Your task to perform on an android device: turn off picture-in-picture Image 0: 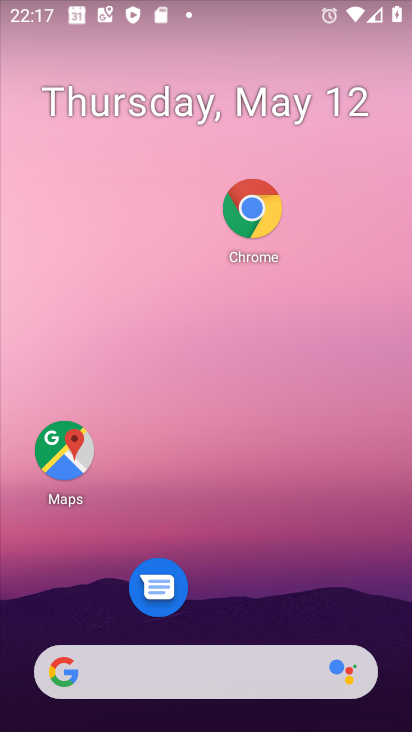
Step 0: drag from (281, 567) to (276, 261)
Your task to perform on an android device: turn off picture-in-picture Image 1: 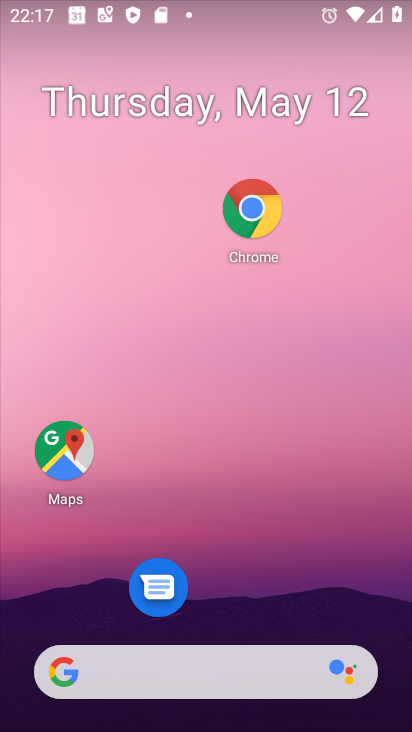
Step 1: drag from (240, 588) to (282, 239)
Your task to perform on an android device: turn off picture-in-picture Image 2: 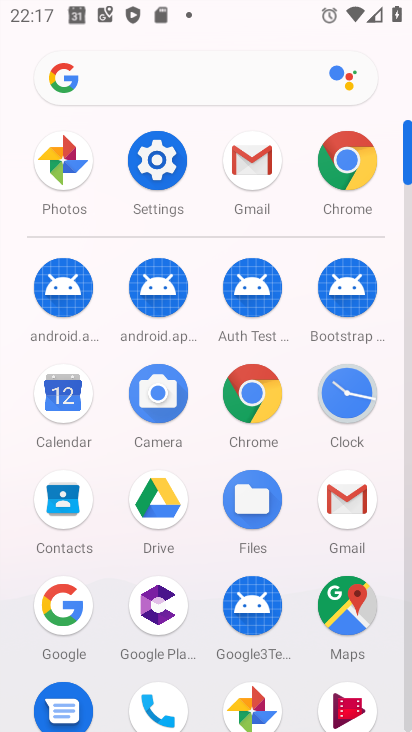
Step 2: click (350, 153)
Your task to perform on an android device: turn off picture-in-picture Image 3: 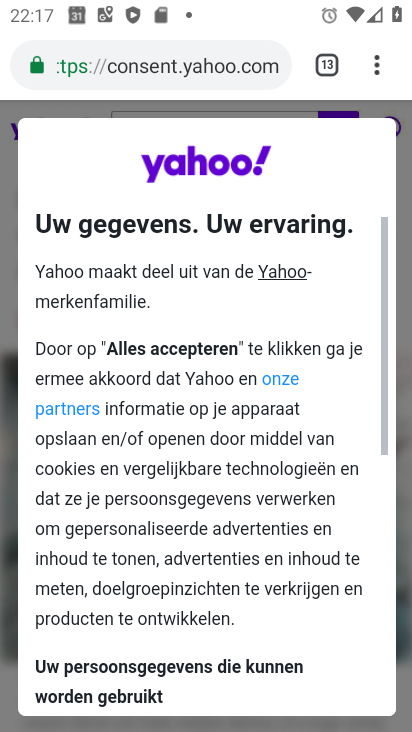
Step 3: press home button
Your task to perform on an android device: turn off picture-in-picture Image 4: 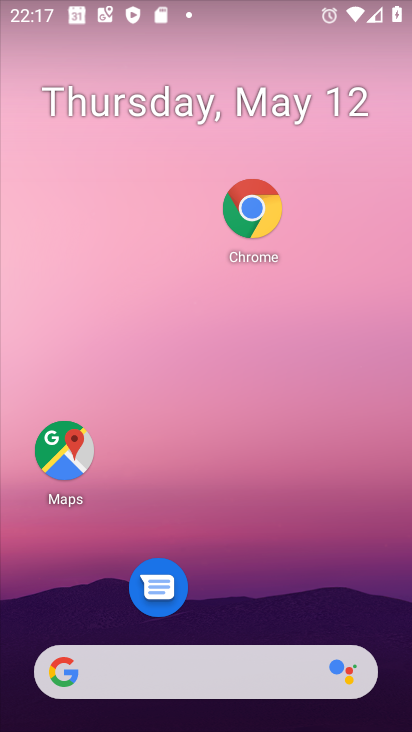
Step 4: drag from (281, 502) to (289, 234)
Your task to perform on an android device: turn off picture-in-picture Image 5: 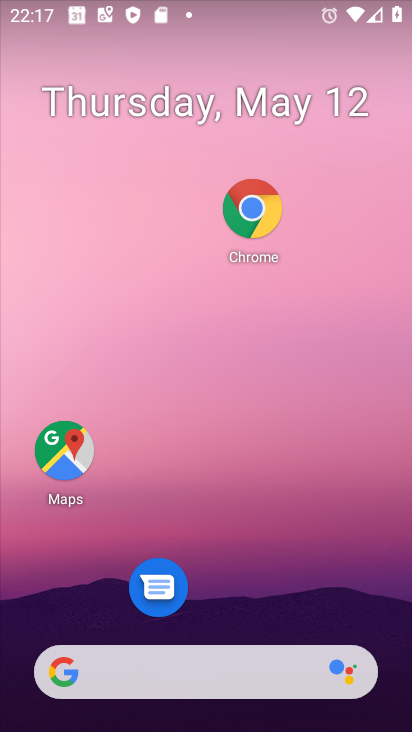
Step 5: drag from (254, 612) to (210, 79)
Your task to perform on an android device: turn off picture-in-picture Image 6: 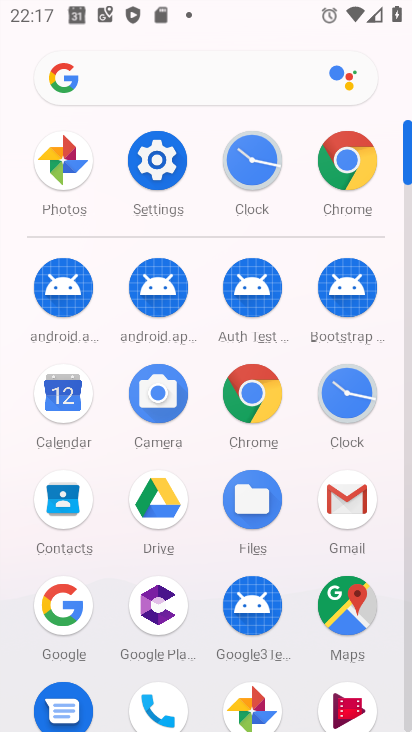
Step 6: click (162, 149)
Your task to perform on an android device: turn off picture-in-picture Image 7: 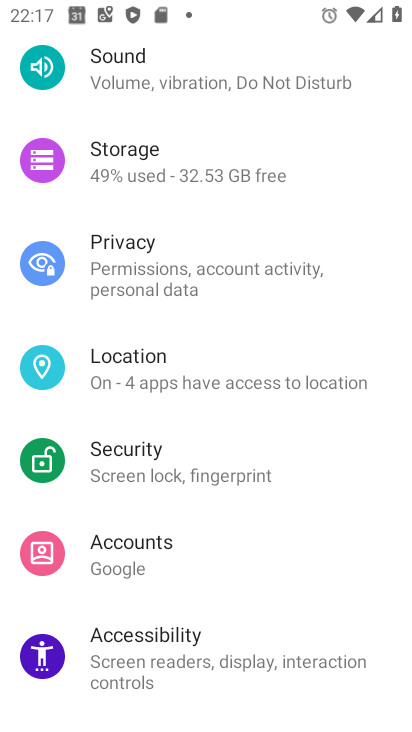
Step 7: drag from (200, 204) to (222, 597)
Your task to perform on an android device: turn off picture-in-picture Image 8: 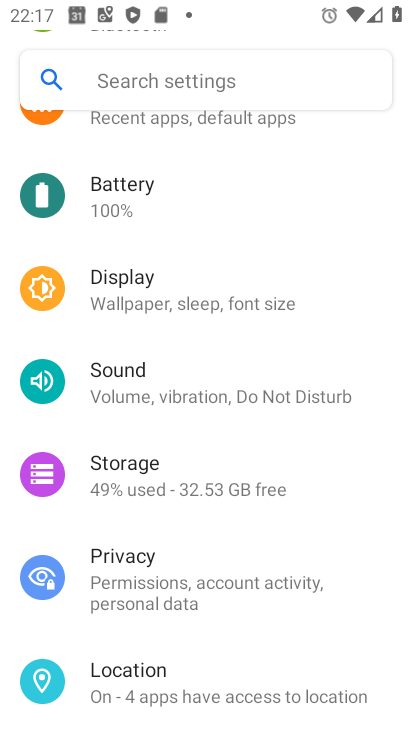
Step 8: drag from (174, 214) to (184, 514)
Your task to perform on an android device: turn off picture-in-picture Image 9: 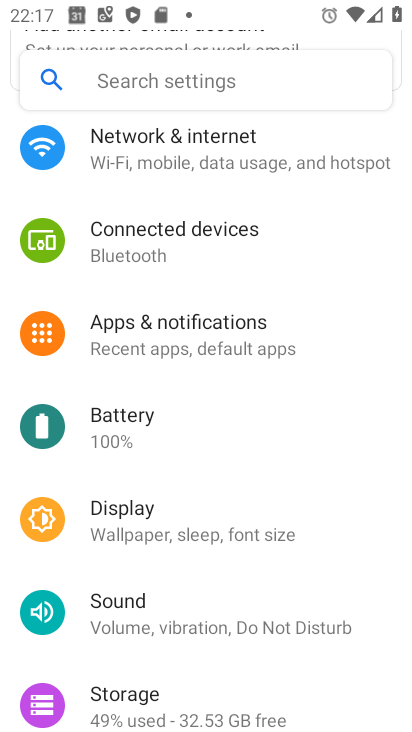
Step 9: click (179, 341)
Your task to perform on an android device: turn off picture-in-picture Image 10: 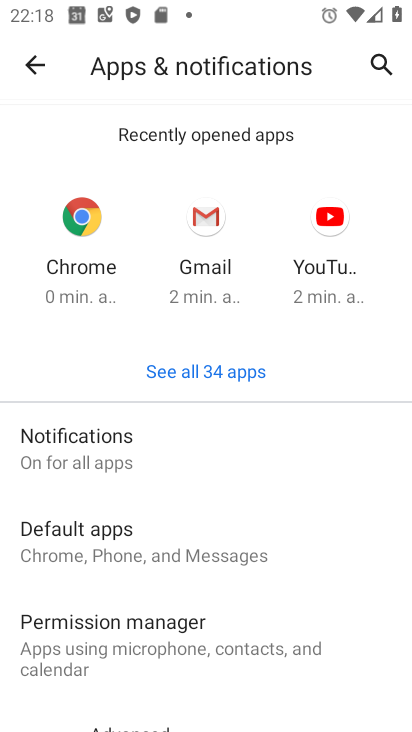
Step 10: click (125, 442)
Your task to perform on an android device: turn off picture-in-picture Image 11: 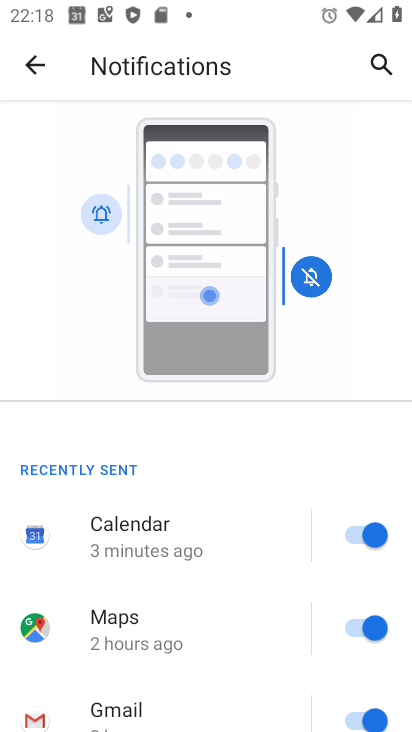
Step 11: click (26, 60)
Your task to perform on an android device: turn off picture-in-picture Image 12: 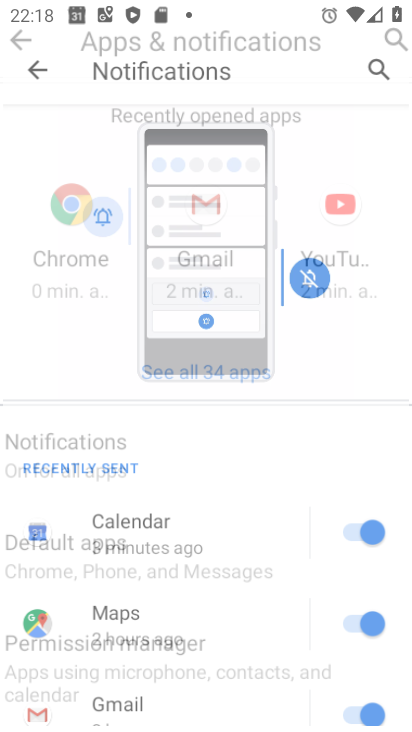
Step 12: drag from (174, 591) to (163, 228)
Your task to perform on an android device: turn off picture-in-picture Image 13: 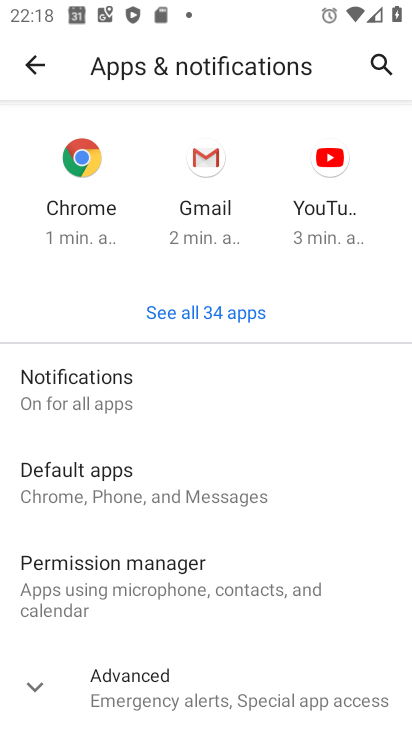
Step 13: click (230, 688)
Your task to perform on an android device: turn off picture-in-picture Image 14: 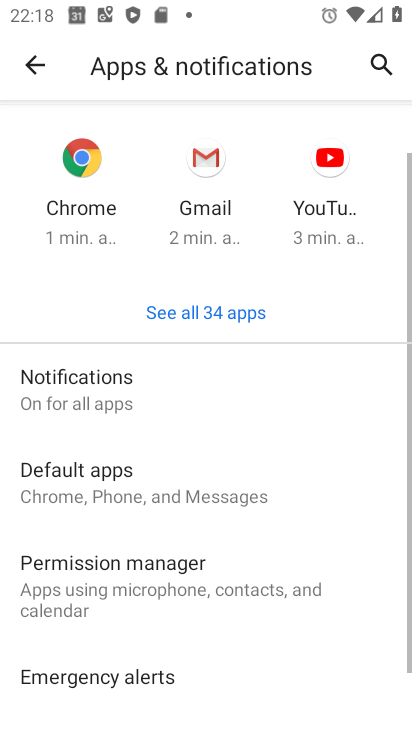
Step 14: drag from (206, 610) to (158, 330)
Your task to perform on an android device: turn off picture-in-picture Image 15: 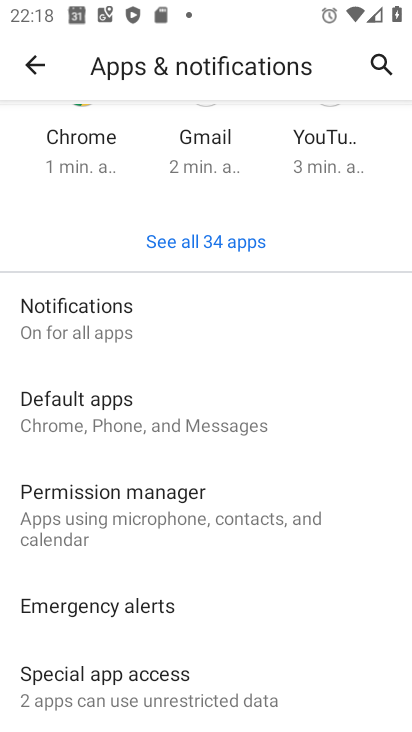
Step 15: click (258, 702)
Your task to perform on an android device: turn off picture-in-picture Image 16: 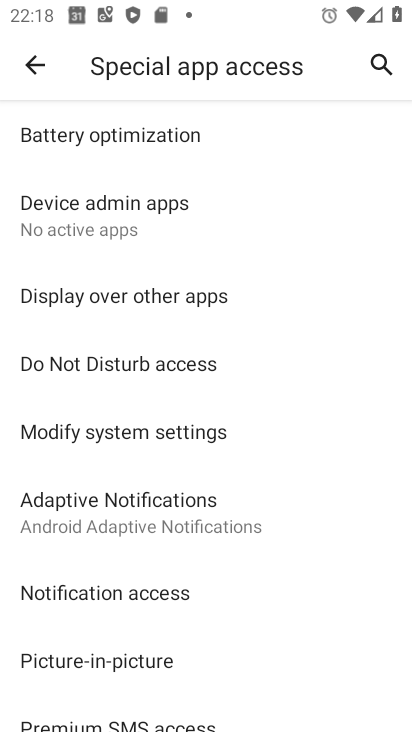
Step 16: click (129, 675)
Your task to perform on an android device: turn off picture-in-picture Image 17: 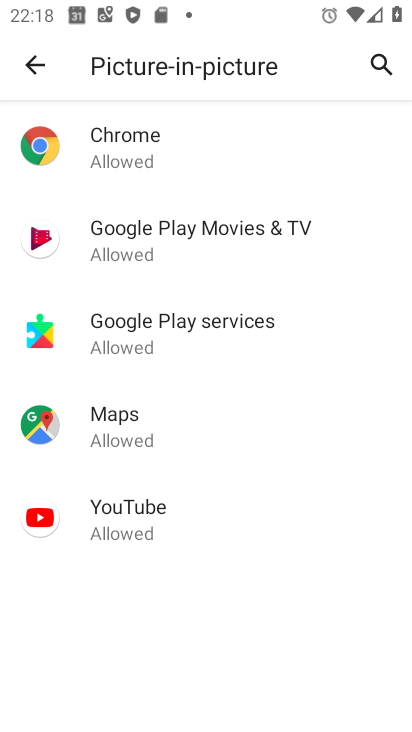
Step 17: click (146, 497)
Your task to perform on an android device: turn off picture-in-picture Image 18: 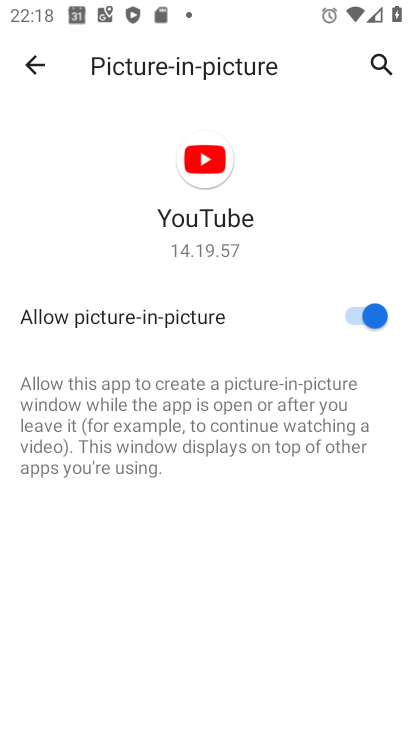
Step 18: click (346, 323)
Your task to perform on an android device: turn off picture-in-picture Image 19: 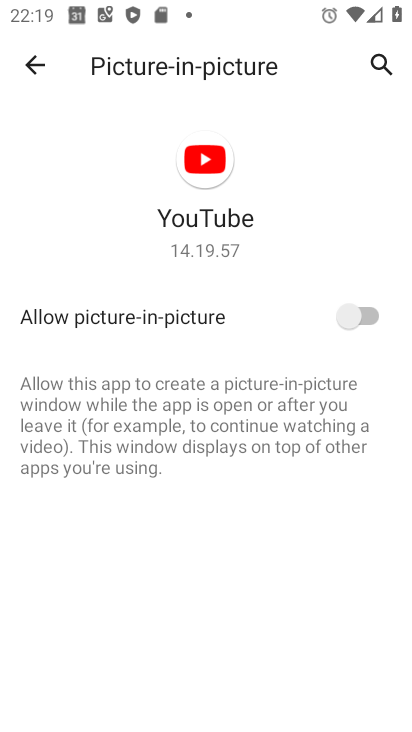
Step 19: task complete